Your task to perform on an android device: Open accessibility settings Image 0: 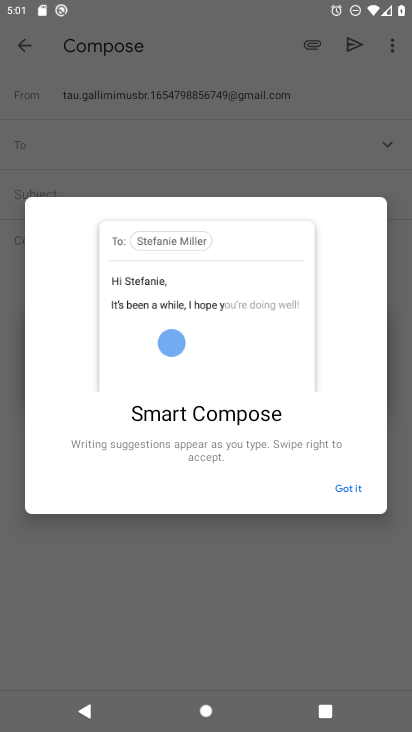
Step 0: press home button
Your task to perform on an android device: Open accessibility settings Image 1: 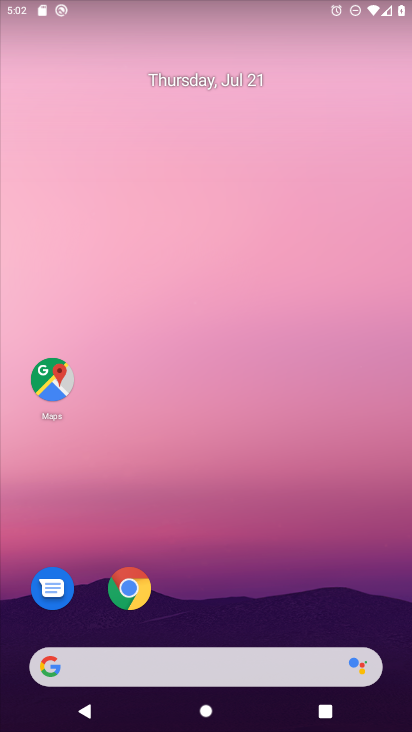
Step 1: drag from (235, 627) to (183, 158)
Your task to perform on an android device: Open accessibility settings Image 2: 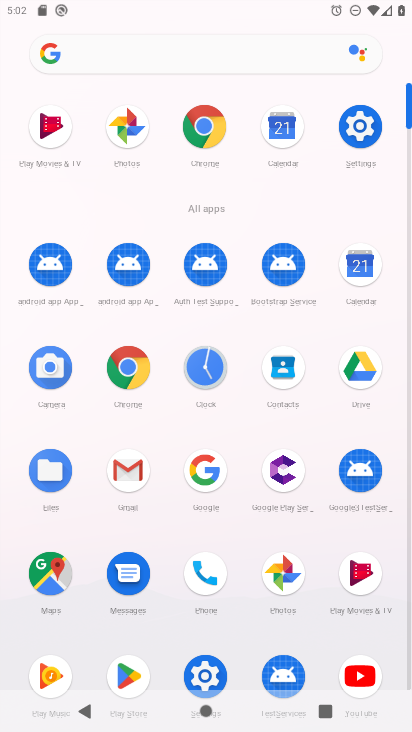
Step 2: click (368, 145)
Your task to perform on an android device: Open accessibility settings Image 3: 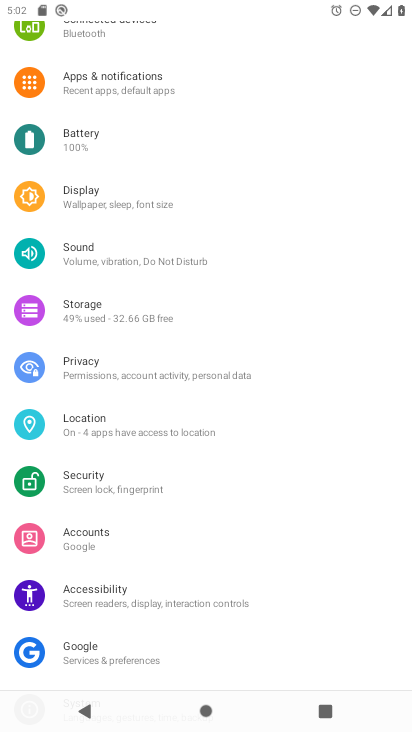
Step 3: click (234, 597)
Your task to perform on an android device: Open accessibility settings Image 4: 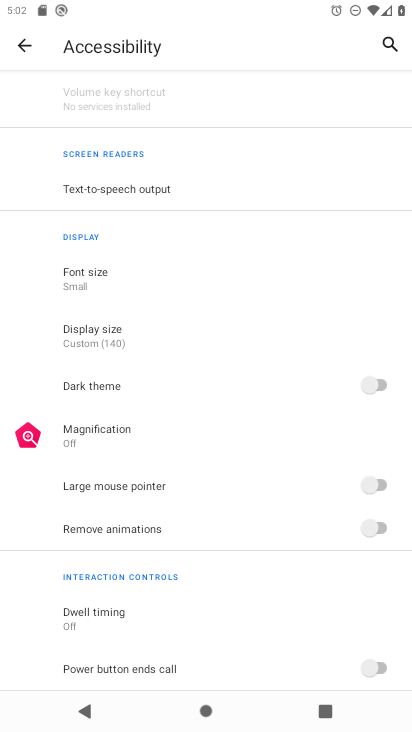
Step 4: task complete